Your task to perform on an android device: Go to Google maps Image 0: 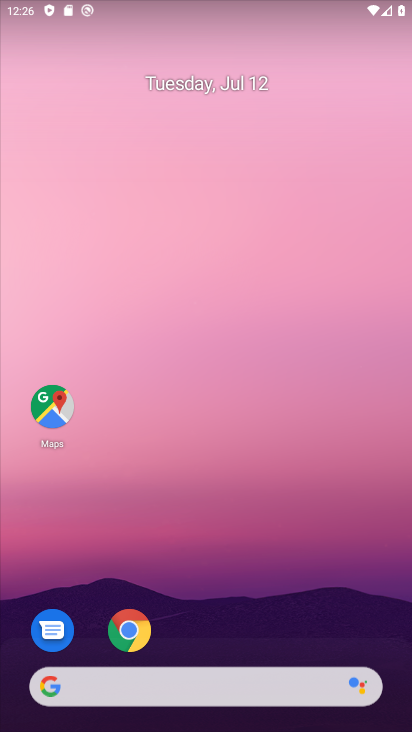
Step 0: click (53, 409)
Your task to perform on an android device: Go to Google maps Image 1: 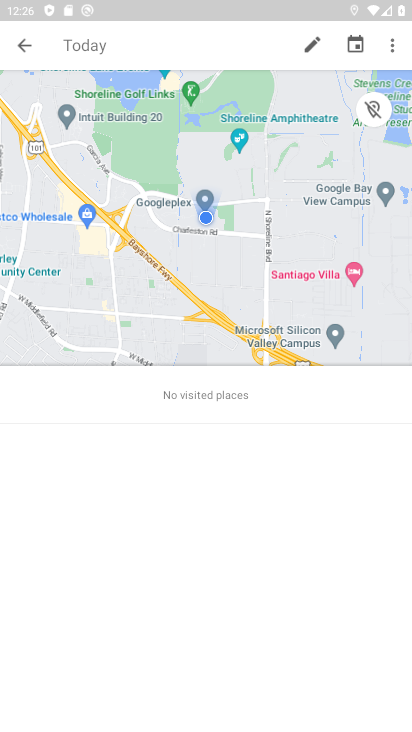
Step 1: task complete